Your task to perform on an android device: check data usage Image 0: 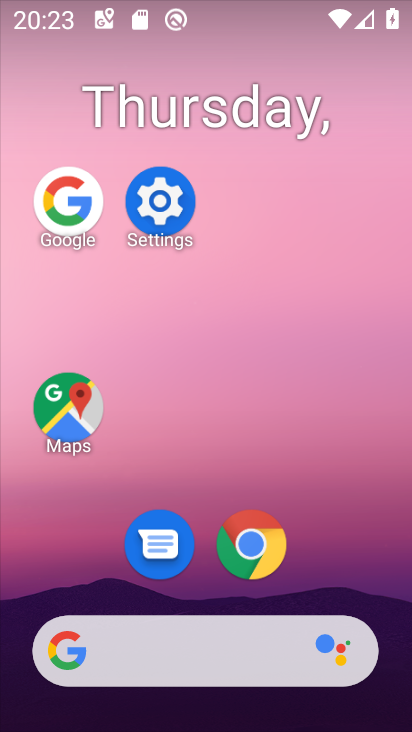
Step 0: drag from (265, 694) to (241, 272)
Your task to perform on an android device: check data usage Image 1: 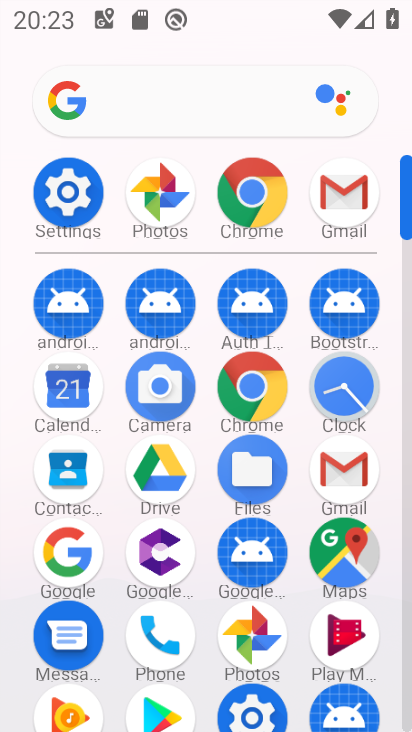
Step 1: click (65, 184)
Your task to perform on an android device: check data usage Image 2: 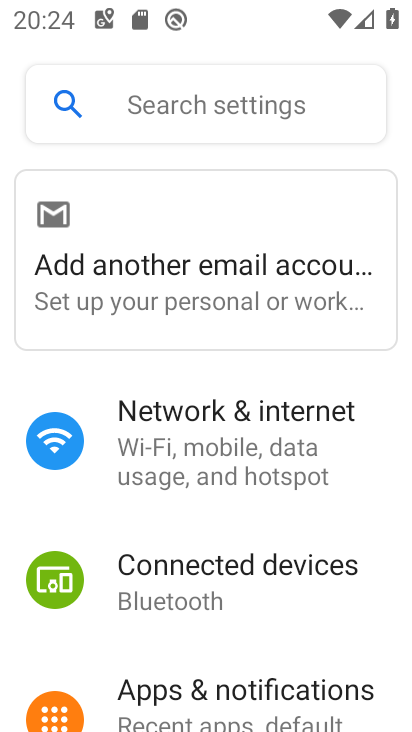
Step 2: click (180, 115)
Your task to perform on an android device: check data usage Image 3: 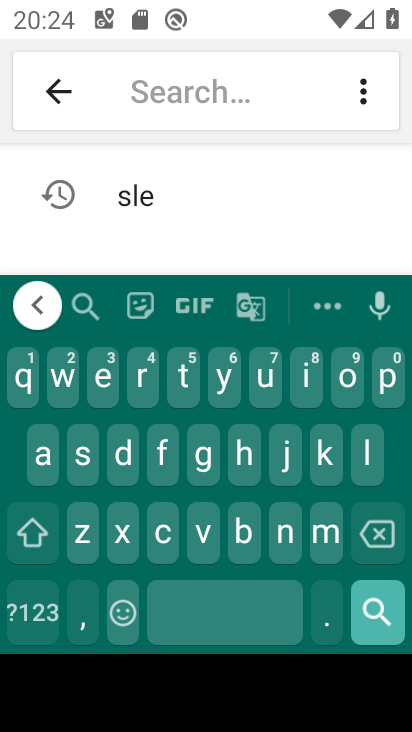
Step 3: click (121, 455)
Your task to perform on an android device: check data usage Image 4: 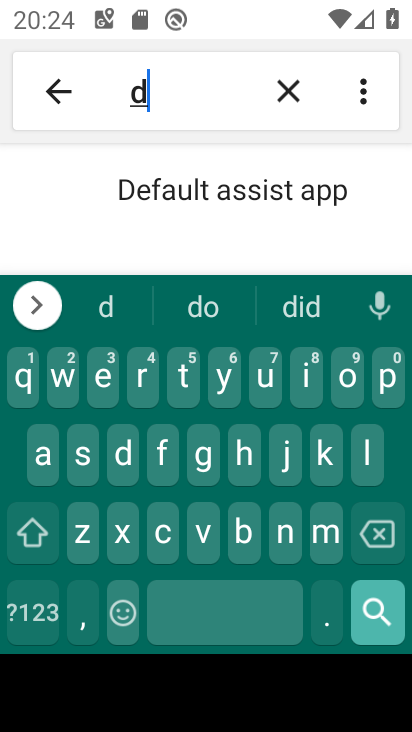
Step 4: click (39, 457)
Your task to perform on an android device: check data usage Image 5: 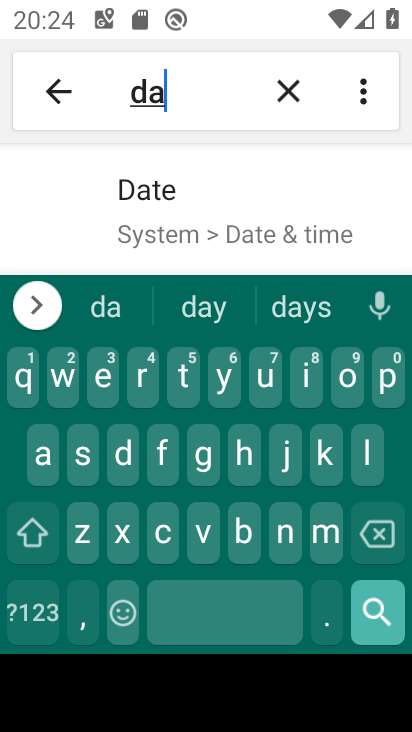
Step 5: click (182, 388)
Your task to perform on an android device: check data usage Image 6: 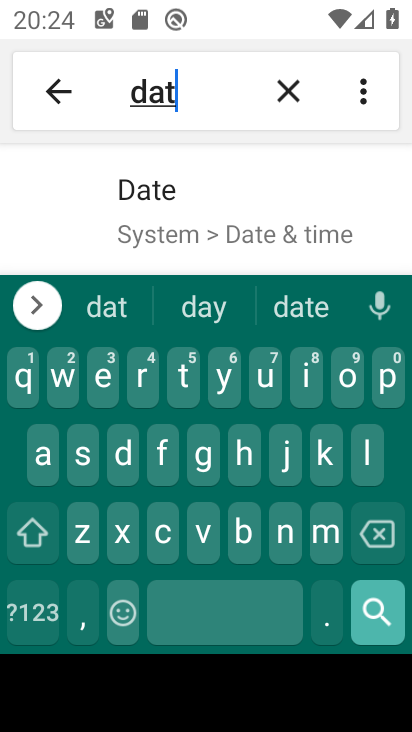
Step 6: click (38, 464)
Your task to perform on an android device: check data usage Image 7: 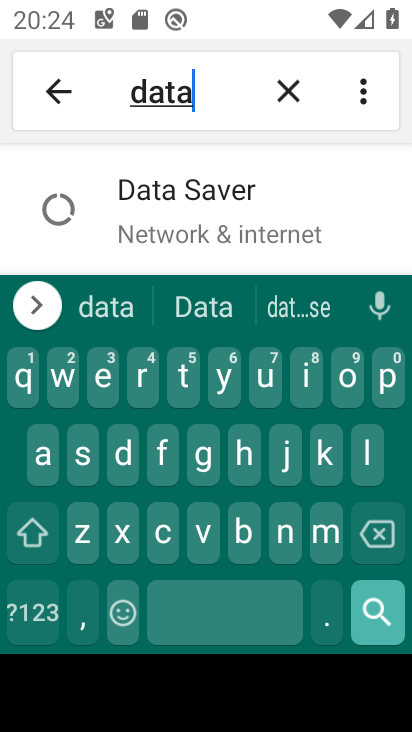
Step 7: click (226, 603)
Your task to perform on an android device: check data usage Image 8: 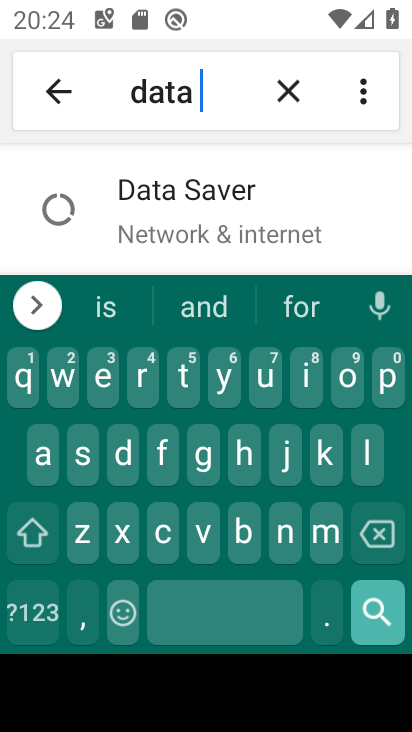
Step 8: click (265, 389)
Your task to perform on an android device: check data usage Image 9: 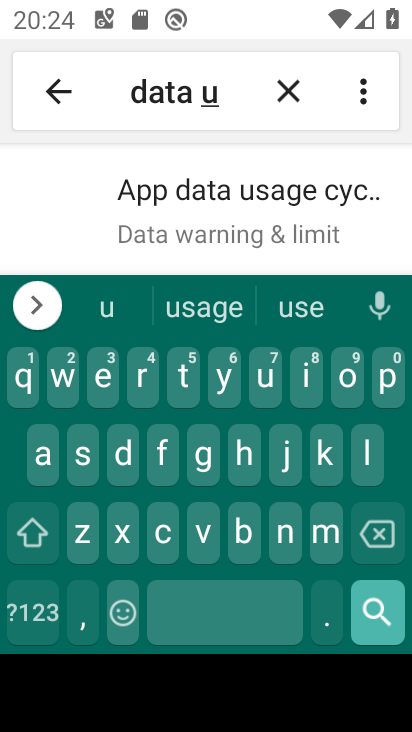
Step 9: press back button
Your task to perform on an android device: check data usage Image 10: 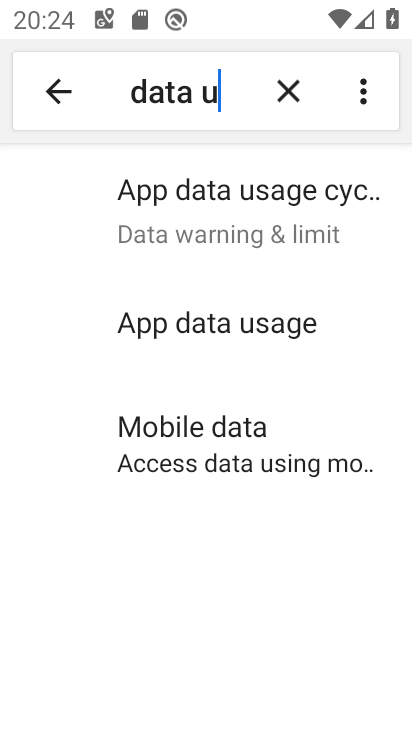
Step 10: click (193, 324)
Your task to perform on an android device: check data usage Image 11: 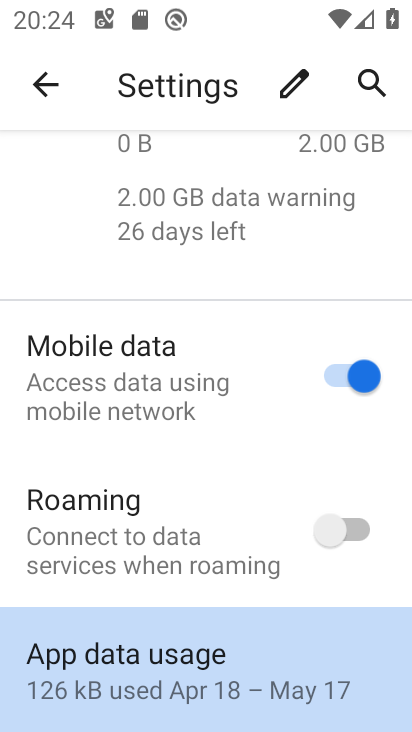
Step 11: click (123, 689)
Your task to perform on an android device: check data usage Image 12: 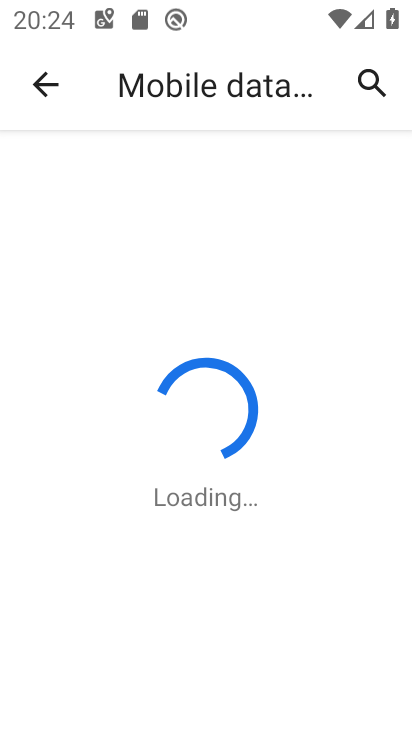
Step 12: task complete